Your task to perform on an android device: Open the web browser Image 0: 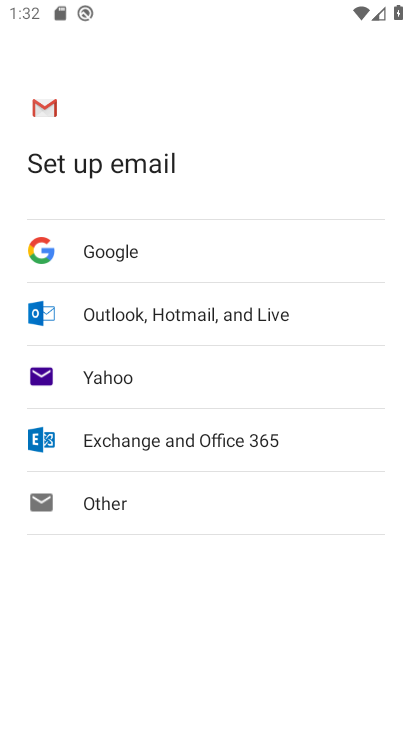
Step 0: press home button
Your task to perform on an android device: Open the web browser Image 1: 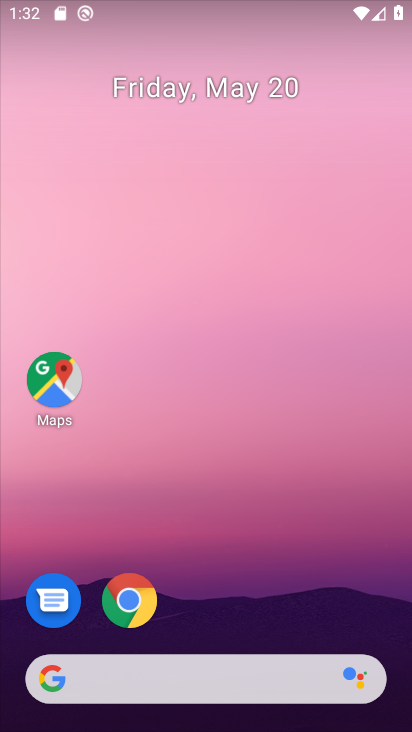
Step 1: drag from (115, 470) to (96, 353)
Your task to perform on an android device: Open the web browser Image 2: 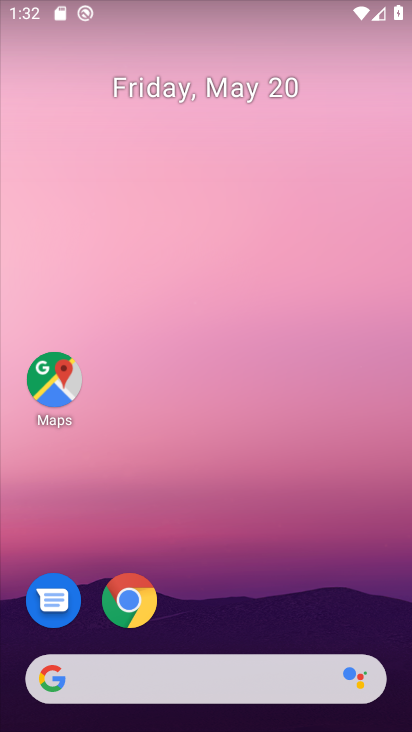
Step 2: click (96, 353)
Your task to perform on an android device: Open the web browser Image 3: 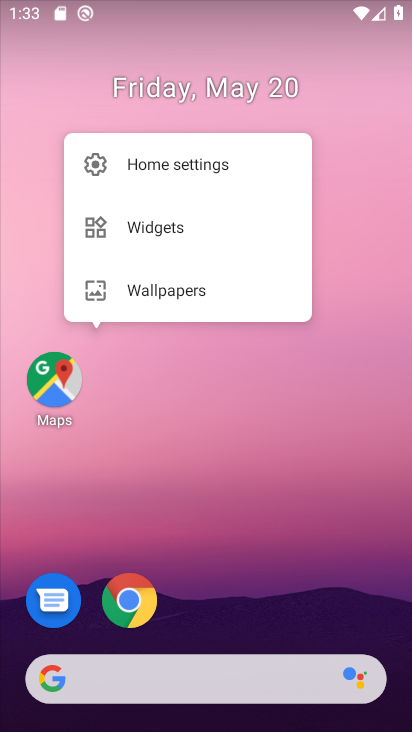
Step 3: click (131, 600)
Your task to perform on an android device: Open the web browser Image 4: 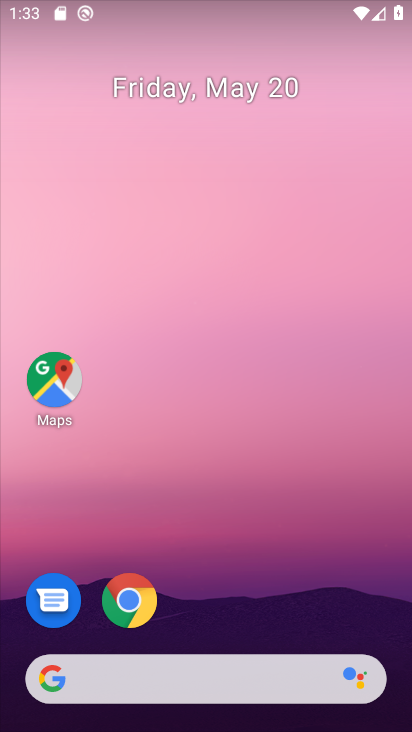
Step 4: click (140, 599)
Your task to perform on an android device: Open the web browser Image 5: 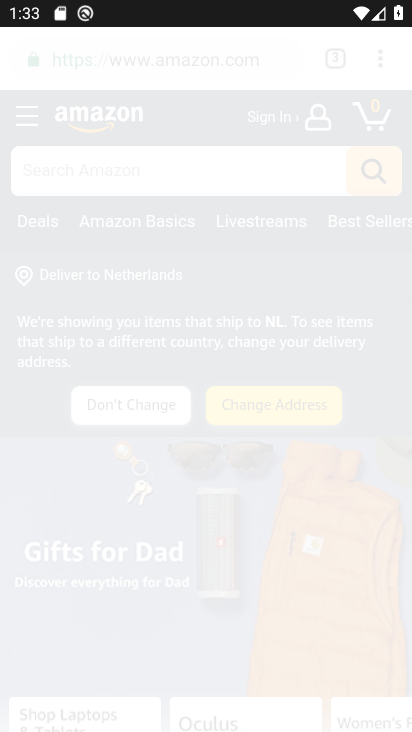
Step 5: task complete